Your task to perform on an android device: Show me productivity apps on the Play Store Image 0: 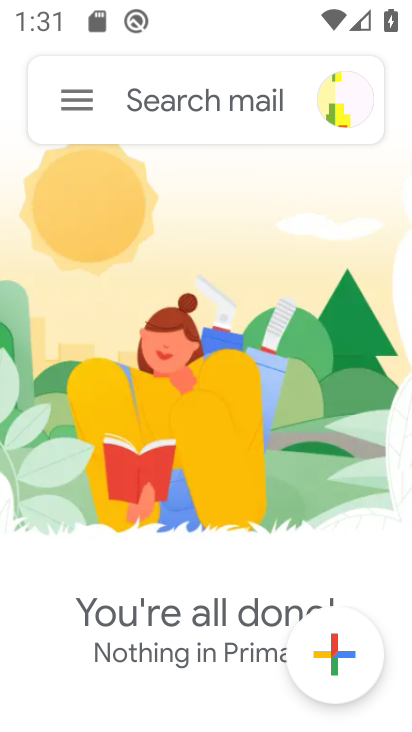
Step 0: press home button
Your task to perform on an android device: Show me productivity apps on the Play Store Image 1: 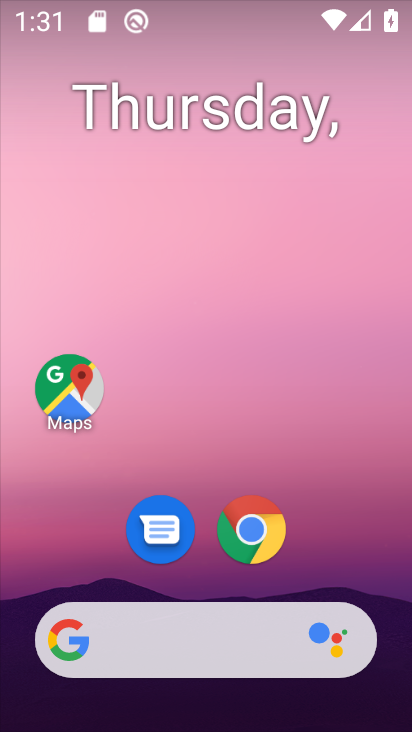
Step 1: drag from (340, 535) to (309, 155)
Your task to perform on an android device: Show me productivity apps on the Play Store Image 2: 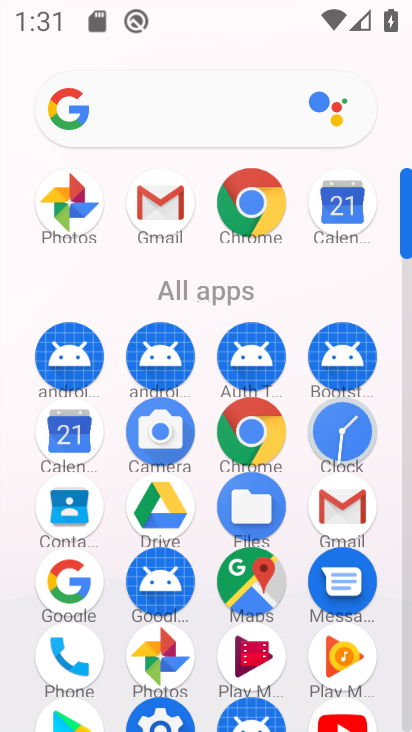
Step 2: drag from (304, 617) to (307, 280)
Your task to perform on an android device: Show me productivity apps on the Play Store Image 3: 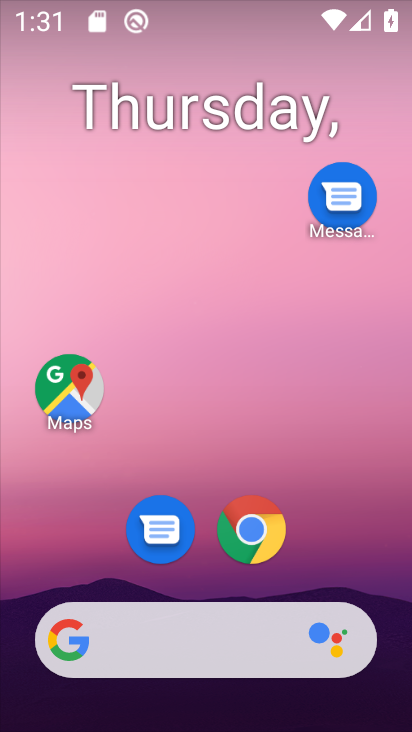
Step 3: drag from (329, 532) to (326, 185)
Your task to perform on an android device: Show me productivity apps on the Play Store Image 4: 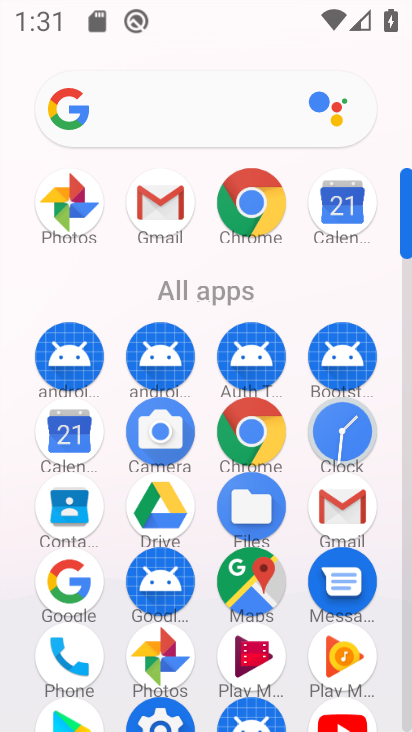
Step 4: drag from (297, 597) to (320, 273)
Your task to perform on an android device: Show me productivity apps on the Play Store Image 5: 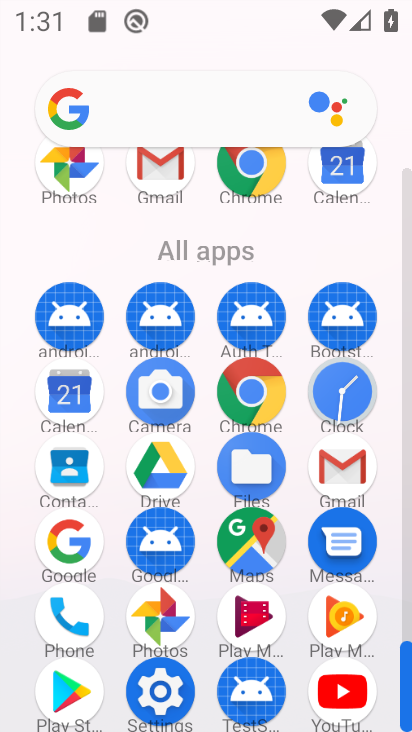
Step 5: click (80, 695)
Your task to perform on an android device: Show me productivity apps on the Play Store Image 6: 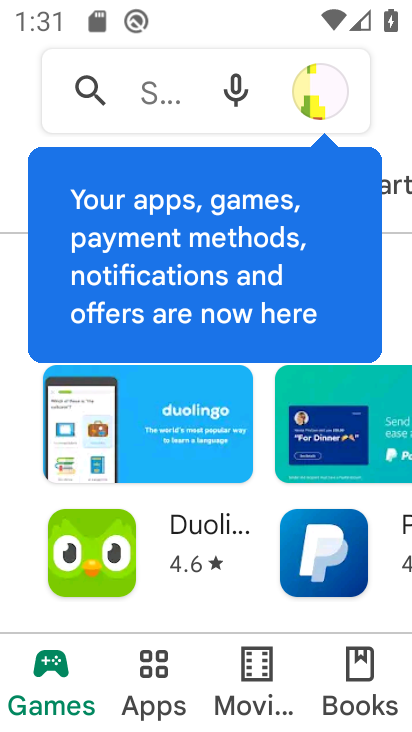
Step 6: click (384, 121)
Your task to perform on an android device: Show me productivity apps on the Play Store Image 7: 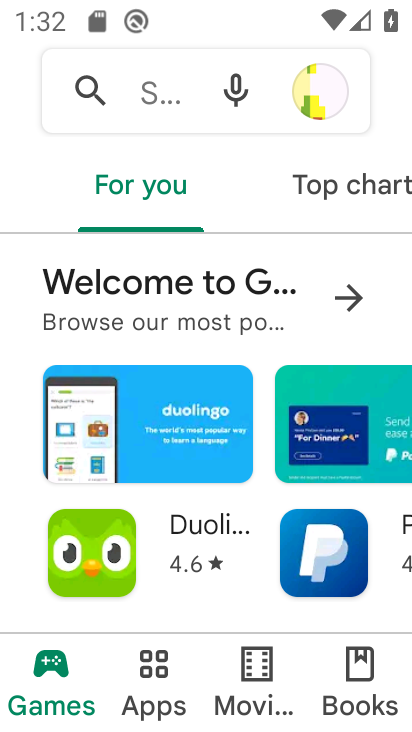
Step 7: task complete